Your task to perform on an android device: Set the phone to "Do not disturb". Image 0: 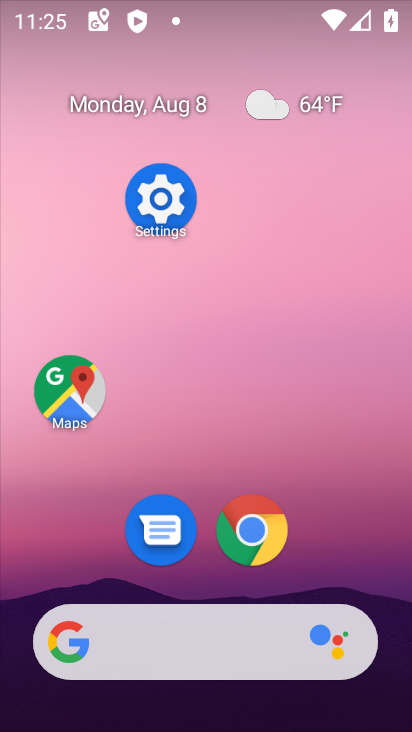
Step 0: drag from (205, 708) to (244, 9)
Your task to perform on an android device: Set the phone to "Do not disturb". Image 1: 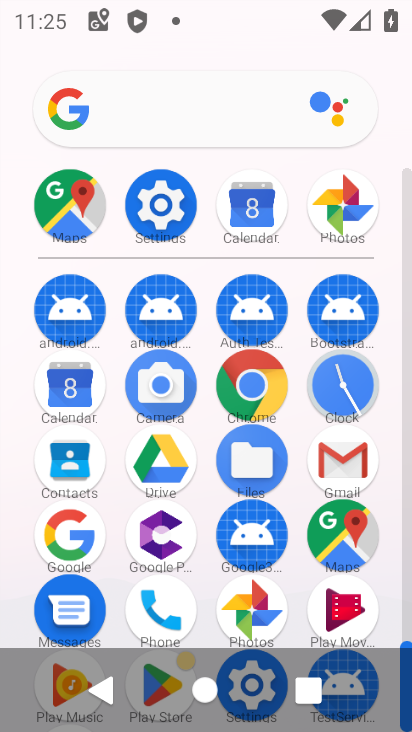
Step 1: click (260, 11)
Your task to perform on an android device: Set the phone to "Do not disturb". Image 2: 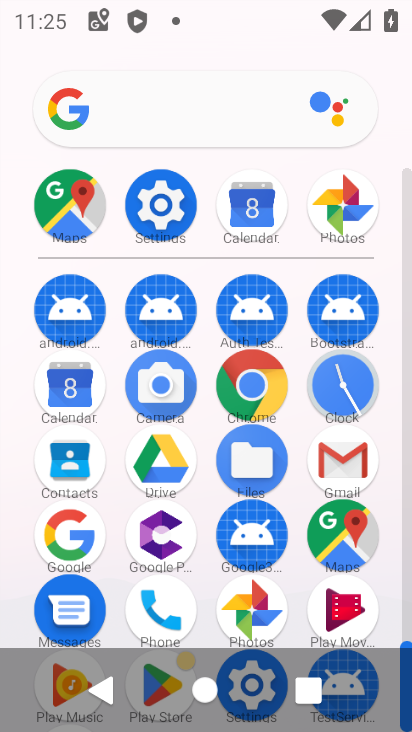
Step 2: drag from (188, 312) to (184, 59)
Your task to perform on an android device: Set the phone to "Do not disturb". Image 3: 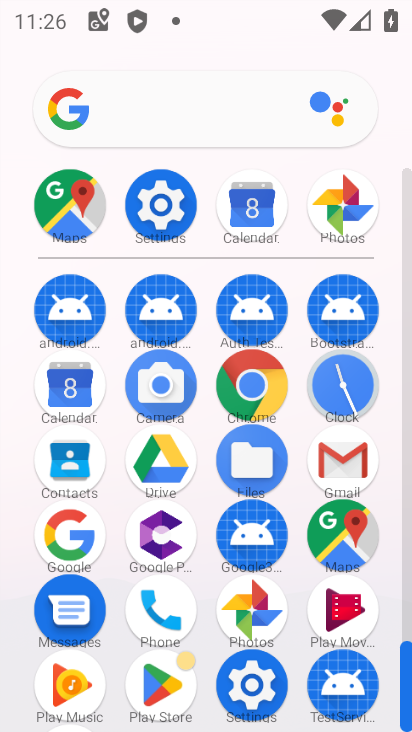
Step 3: click (246, 690)
Your task to perform on an android device: Set the phone to "Do not disturb". Image 4: 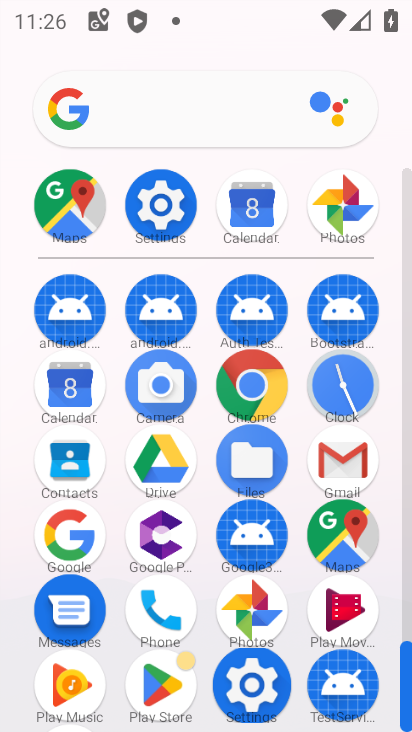
Step 4: click (252, 692)
Your task to perform on an android device: Set the phone to "Do not disturb". Image 5: 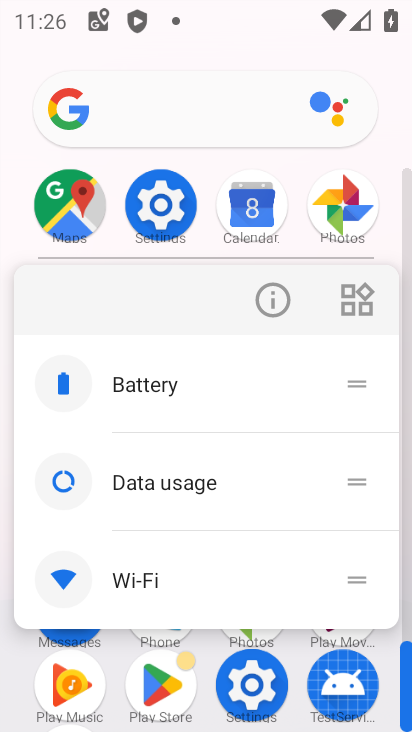
Step 5: click (251, 691)
Your task to perform on an android device: Set the phone to "Do not disturb". Image 6: 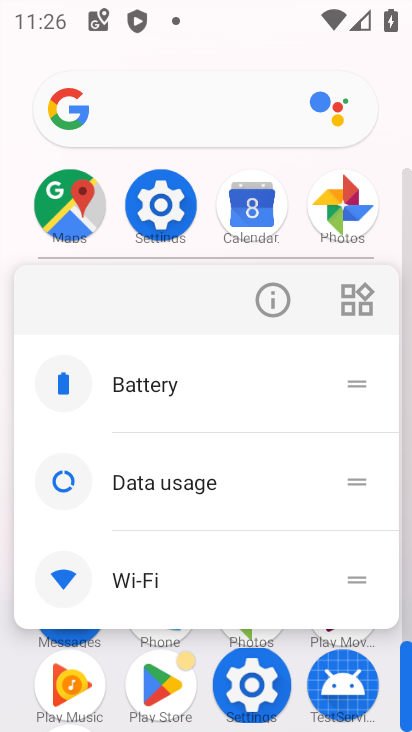
Step 6: click (251, 689)
Your task to perform on an android device: Set the phone to "Do not disturb". Image 7: 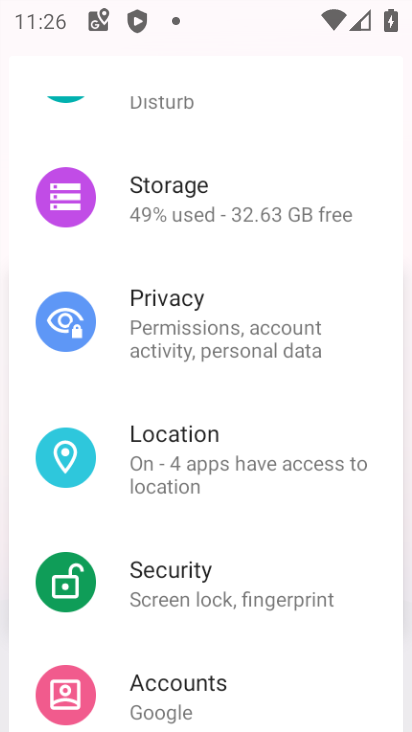
Step 7: click (253, 691)
Your task to perform on an android device: Set the phone to "Do not disturb". Image 8: 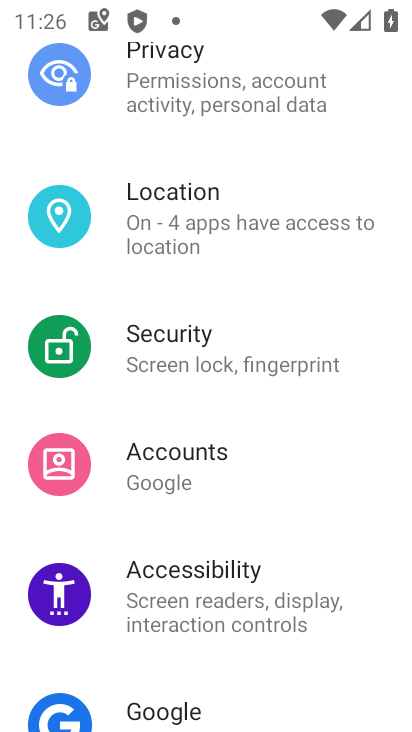
Step 8: click (253, 691)
Your task to perform on an android device: Set the phone to "Do not disturb". Image 9: 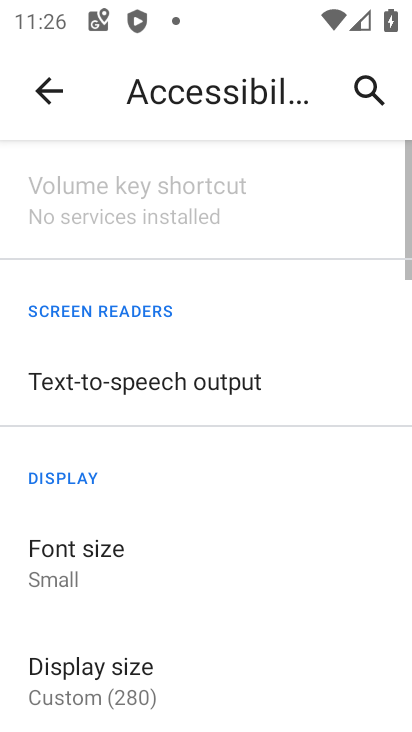
Step 9: click (35, 98)
Your task to perform on an android device: Set the phone to "Do not disturb". Image 10: 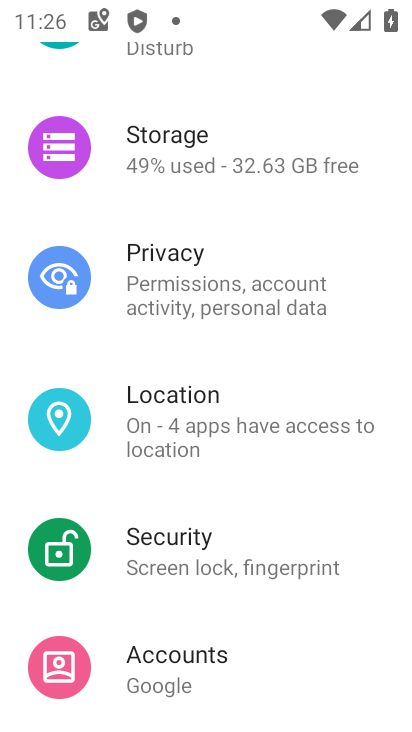
Step 10: drag from (269, 586) to (278, 84)
Your task to perform on an android device: Set the phone to "Do not disturb". Image 11: 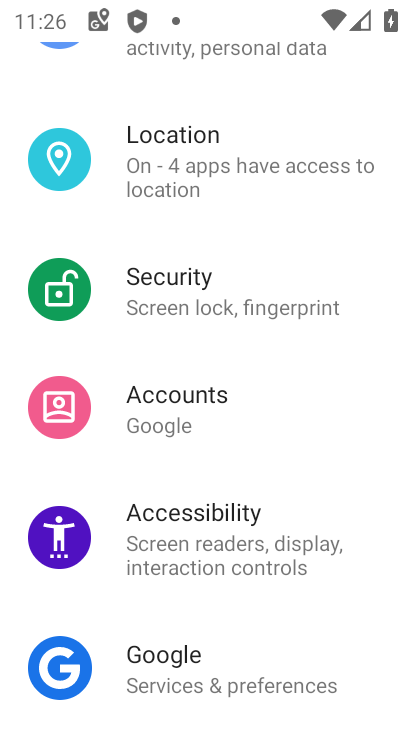
Step 11: drag from (293, 560) to (288, 121)
Your task to perform on an android device: Set the phone to "Do not disturb". Image 12: 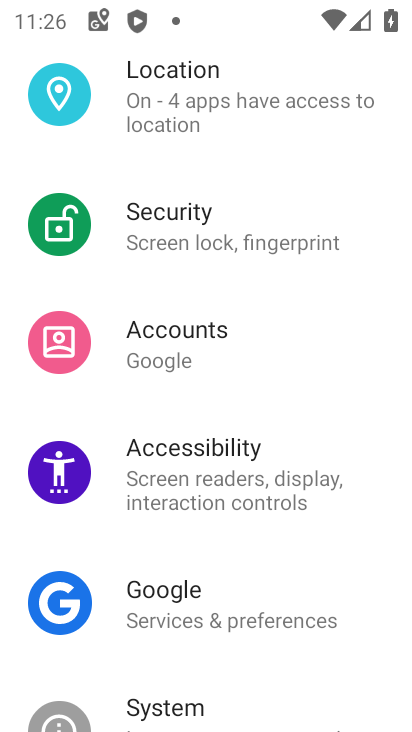
Step 12: drag from (318, 605) to (325, 211)
Your task to perform on an android device: Set the phone to "Do not disturb". Image 13: 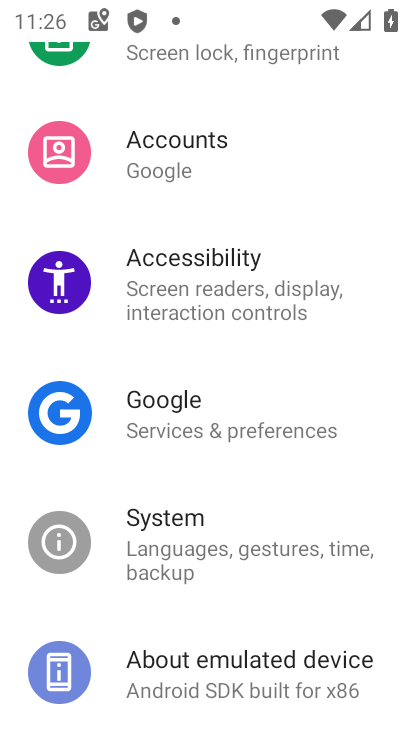
Step 13: drag from (236, 125) to (270, 514)
Your task to perform on an android device: Set the phone to "Do not disturb". Image 14: 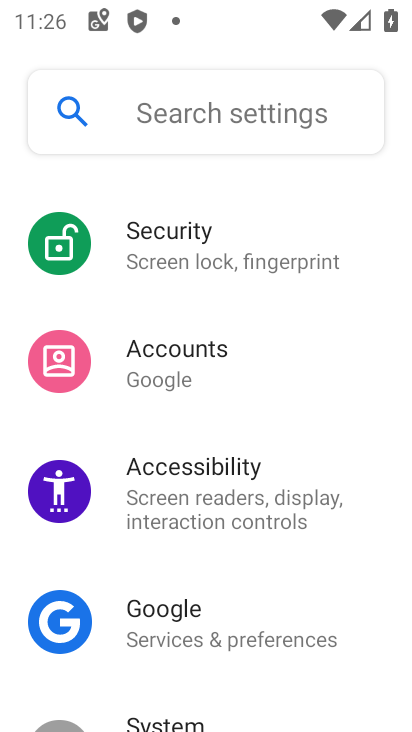
Step 14: drag from (238, 255) to (273, 535)
Your task to perform on an android device: Set the phone to "Do not disturb". Image 15: 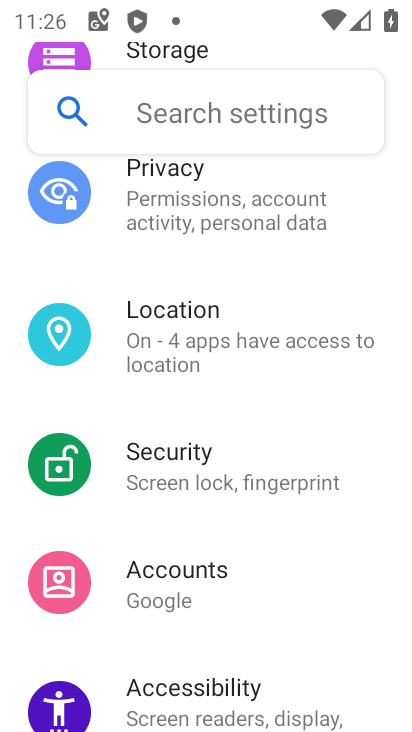
Step 15: drag from (233, 511) to (239, 324)
Your task to perform on an android device: Set the phone to "Do not disturb". Image 16: 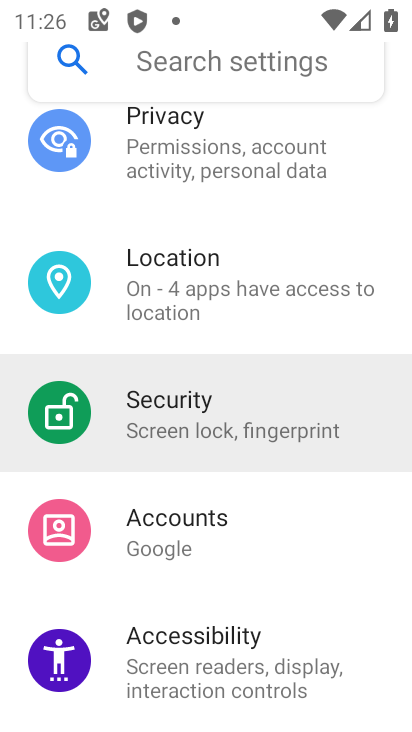
Step 16: drag from (274, 507) to (275, 252)
Your task to perform on an android device: Set the phone to "Do not disturb". Image 17: 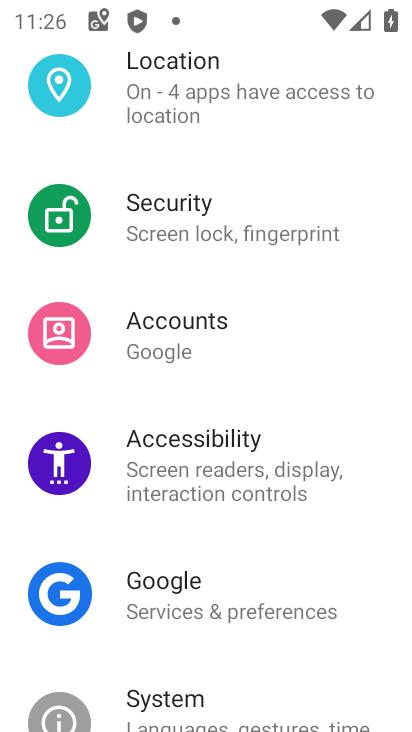
Step 17: drag from (267, 411) to (266, 199)
Your task to perform on an android device: Set the phone to "Do not disturb". Image 18: 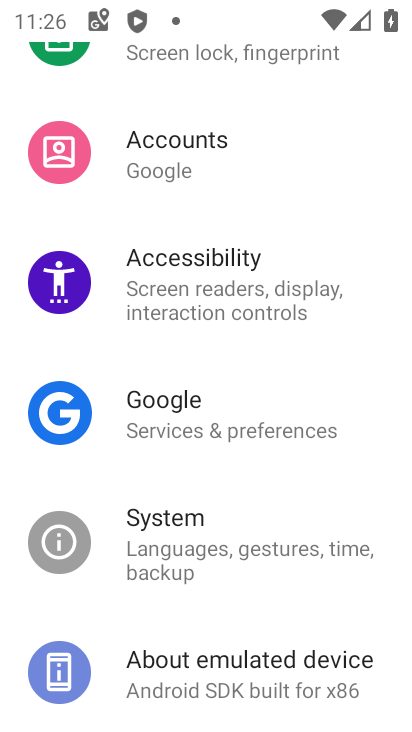
Step 18: drag from (275, 231) to (313, 470)
Your task to perform on an android device: Set the phone to "Do not disturb". Image 19: 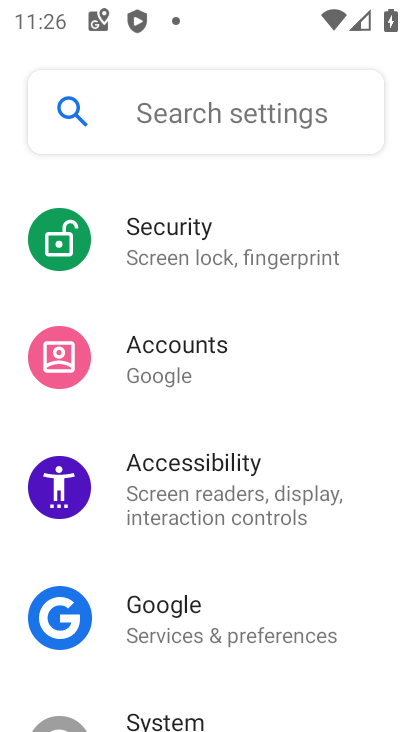
Step 19: drag from (297, 297) to (311, 522)
Your task to perform on an android device: Set the phone to "Do not disturb". Image 20: 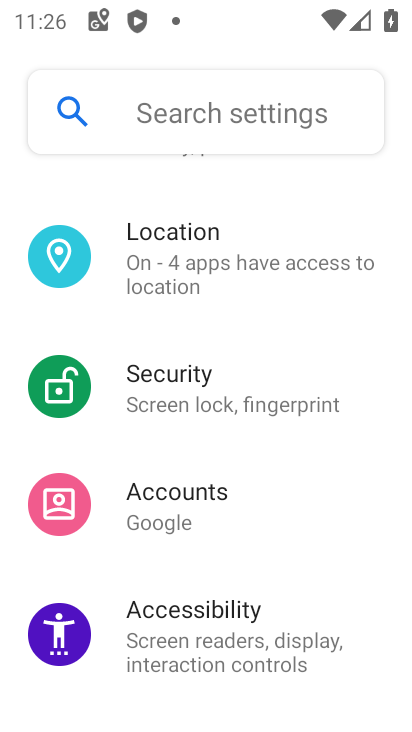
Step 20: drag from (280, 300) to (281, 517)
Your task to perform on an android device: Set the phone to "Do not disturb". Image 21: 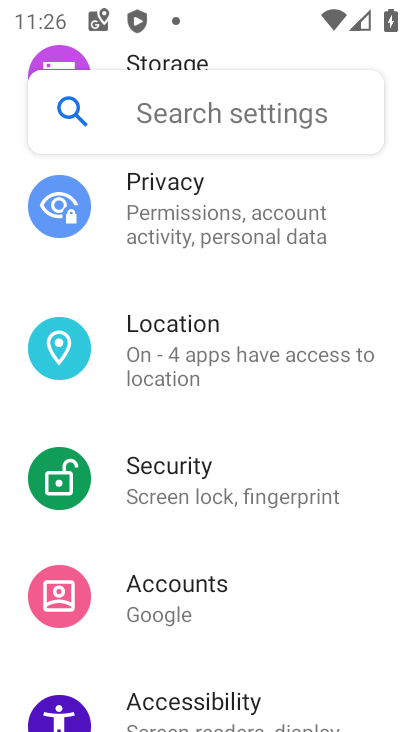
Step 21: drag from (229, 268) to (249, 472)
Your task to perform on an android device: Set the phone to "Do not disturb". Image 22: 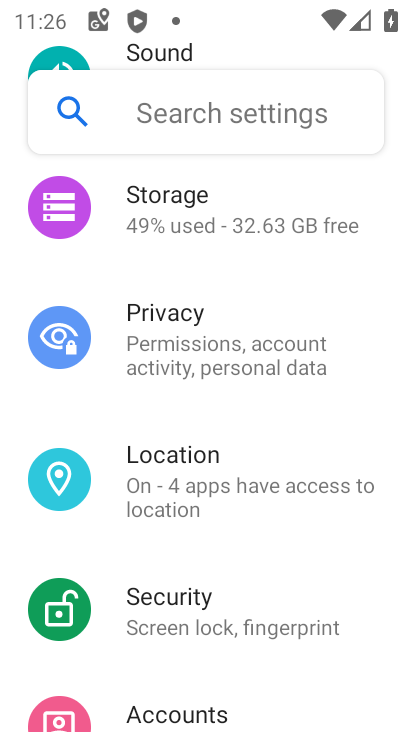
Step 22: drag from (218, 289) to (235, 473)
Your task to perform on an android device: Set the phone to "Do not disturb". Image 23: 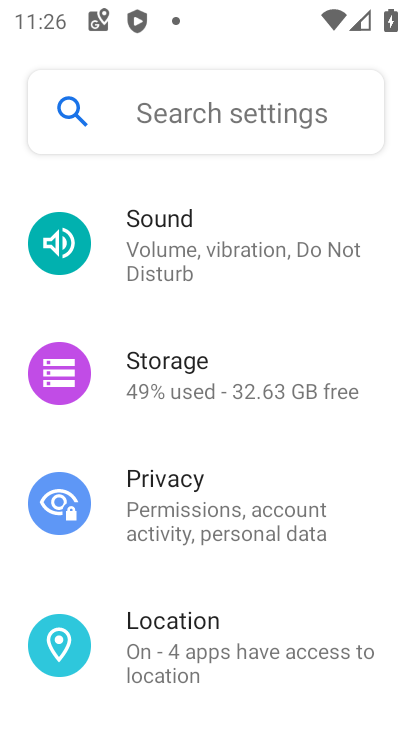
Step 23: drag from (193, 272) to (192, 442)
Your task to perform on an android device: Set the phone to "Do not disturb". Image 24: 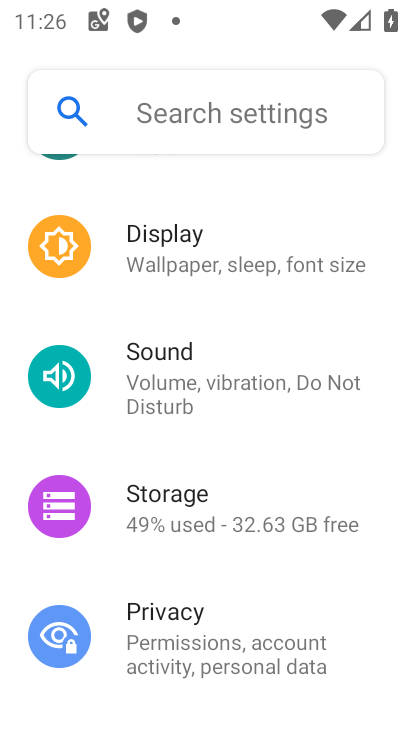
Step 24: drag from (164, 269) to (188, 477)
Your task to perform on an android device: Set the phone to "Do not disturb". Image 25: 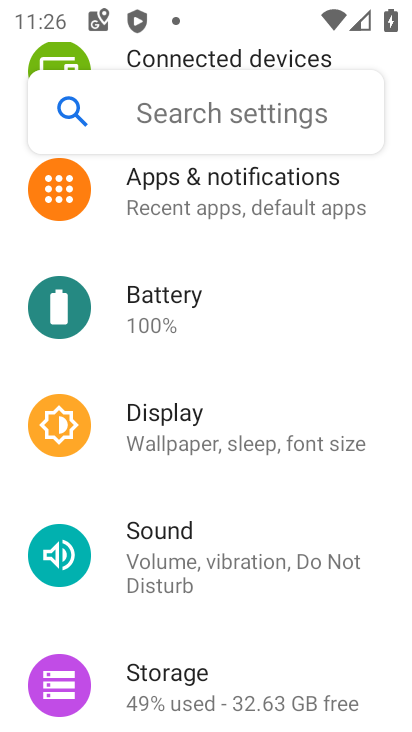
Step 25: click (121, 550)
Your task to perform on an android device: Set the phone to "Do not disturb". Image 26: 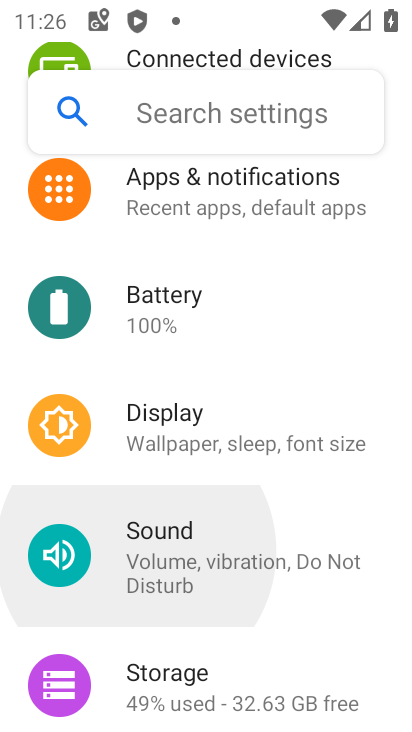
Step 26: task complete